Your task to perform on an android device: toggle location history Image 0: 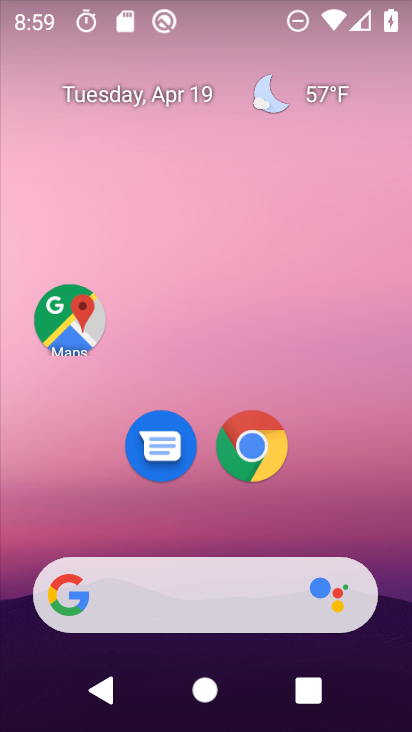
Step 0: press home button
Your task to perform on an android device: toggle location history Image 1: 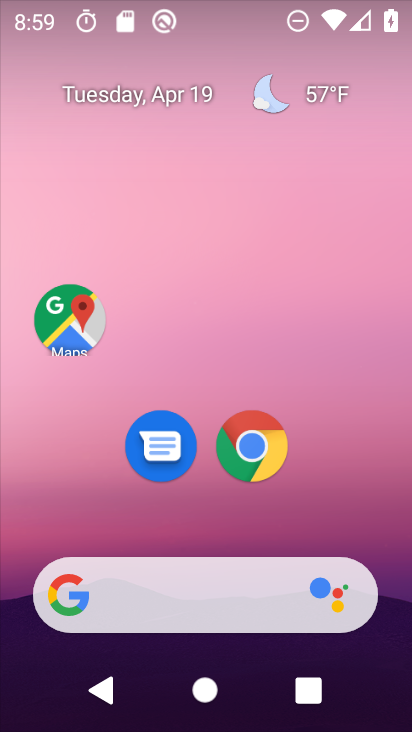
Step 1: drag from (343, 509) to (308, 141)
Your task to perform on an android device: toggle location history Image 2: 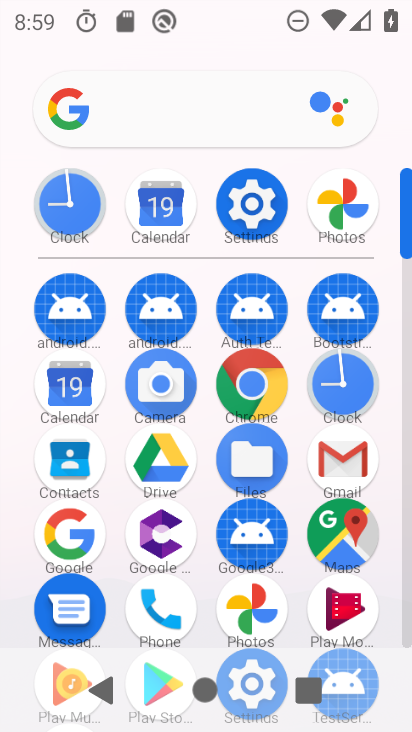
Step 2: click (245, 208)
Your task to perform on an android device: toggle location history Image 3: 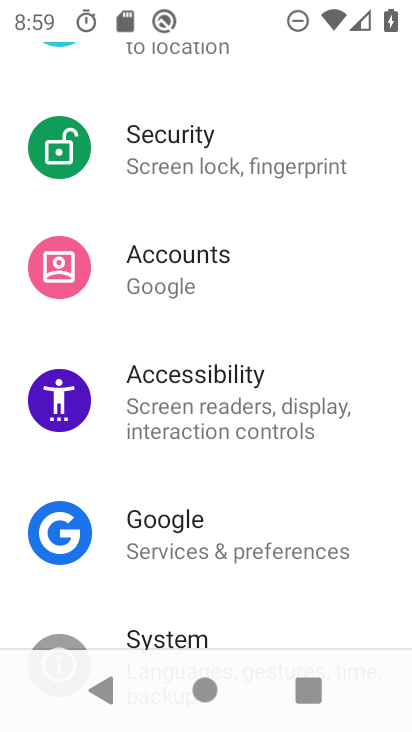
Step 3: drag from (224, 192) to (206, 515)
Your task to perform on an android device: toggle location history Image 4: 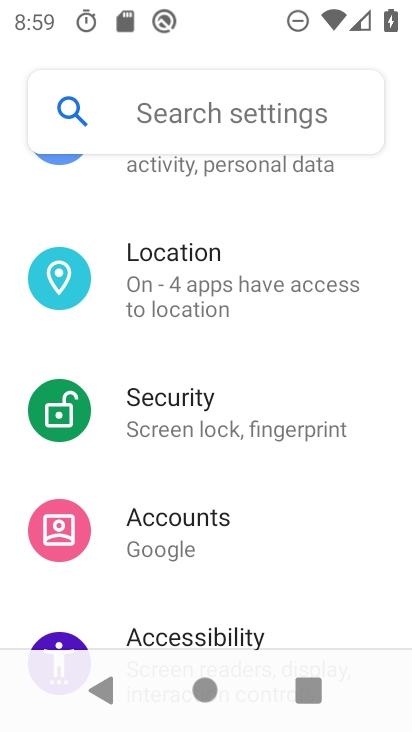
Step 4: click (182, 301)
Your task to perform on an android device: toggle location history Image 5: 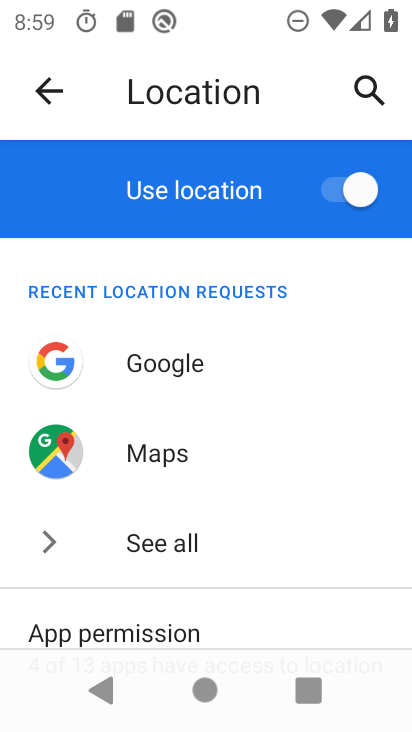
Step 5: drag from (247, 613) to (236, 211)
Your task to perform on an android device: toggle location history Image 6: 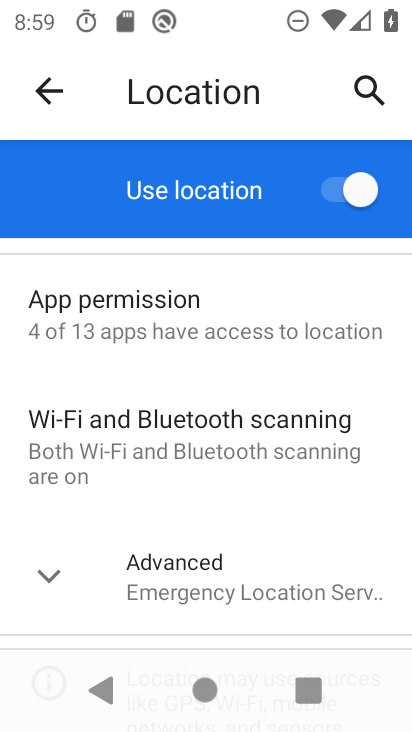
Step 6: click (229, 598)
Your task to perform on an android device: toggle location history Image 7: 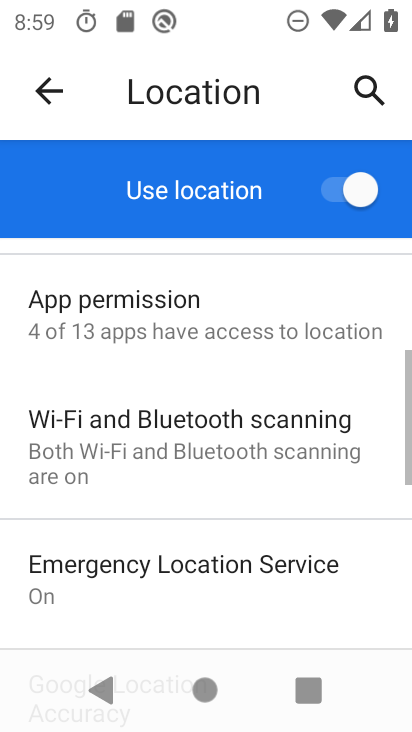
Step 7: drag from (225, 559) to (227, 287)
Your task to perform on an android device: toggle location history Image 8: 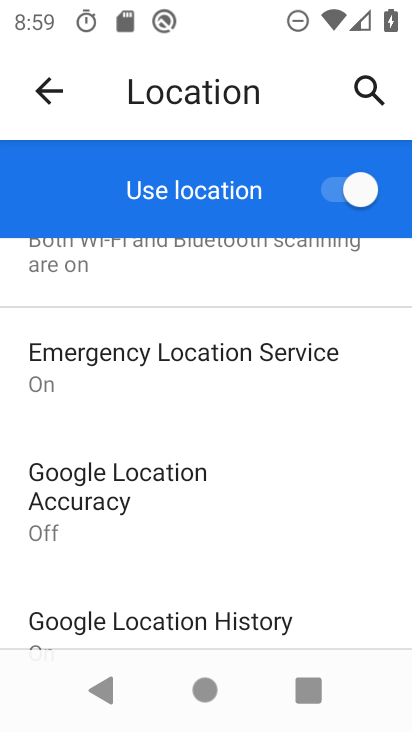
Step 8: click (181, 618)
Your task to perform on an android device: toggle location history Image 9: 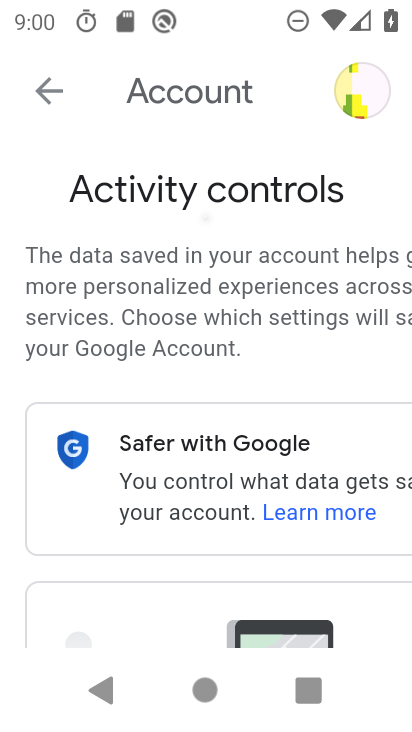
Step 9: drag from (188, 619) to (187, 184)
Your task to perform on an android device: toggle location history Image 10: 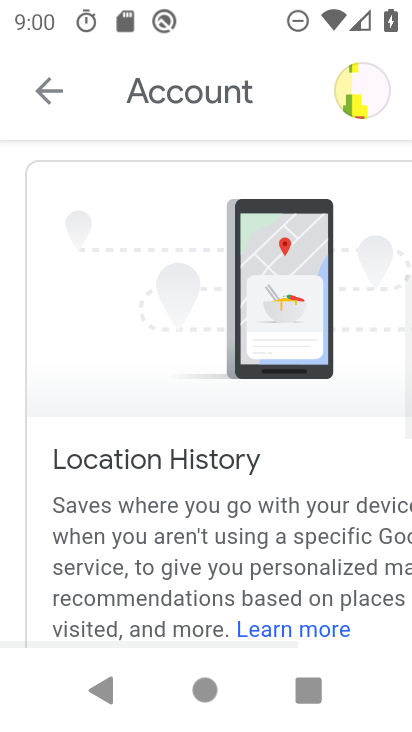
Step 10: drag from (247, 606) to (258, 283)
Your task to perform on an android device: toggle location history Image 11: 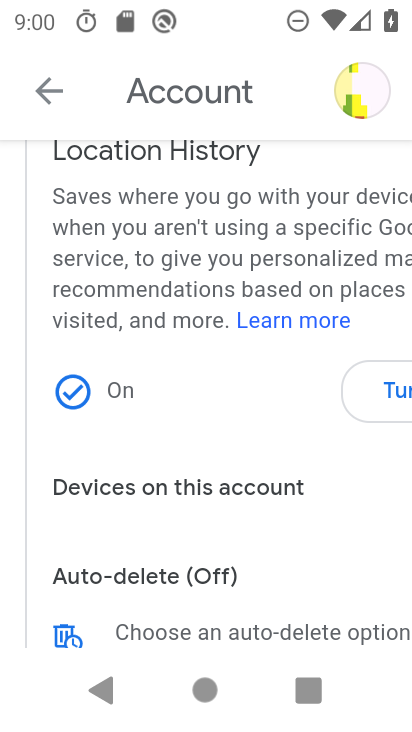
Step 11: click (374, 392)
Your task to perform on an android device: toggle location history Image 12: 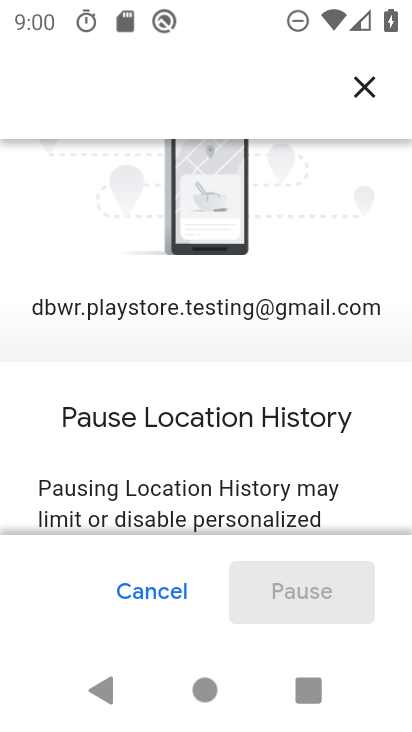
Step 12: drag from (268, 505) to (257, 184)
Your task to perform on an android device: toggle location history Image 13: 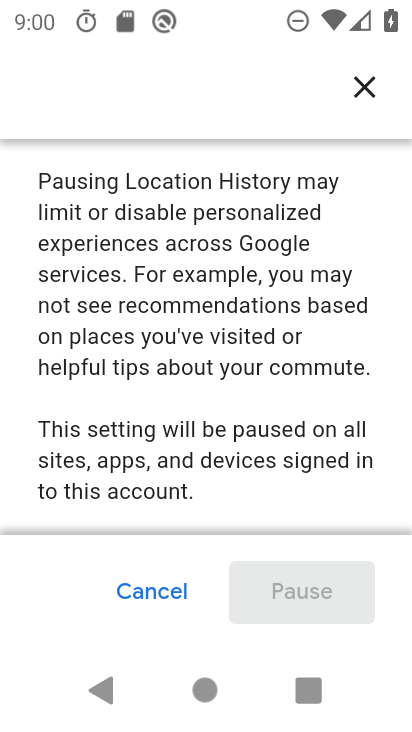
Step 13: drag from (223, 498) to (227, 193)
Your task to perform on an android device: toggle location history Image 14: 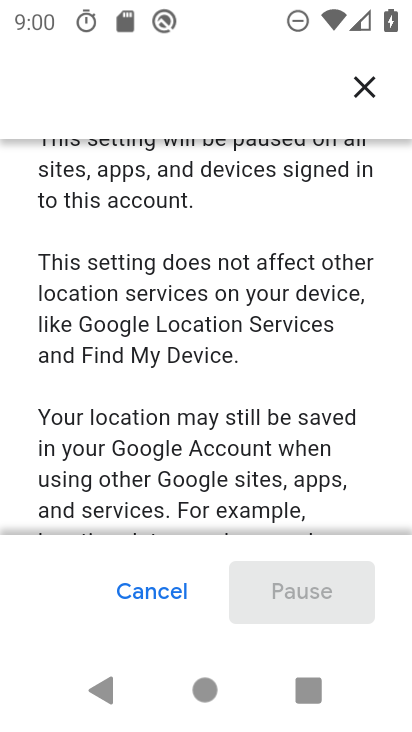
Step 14: drag from (253, 517) to (290, 208)
Your task to perform on an android device: toggle location history Image 15: 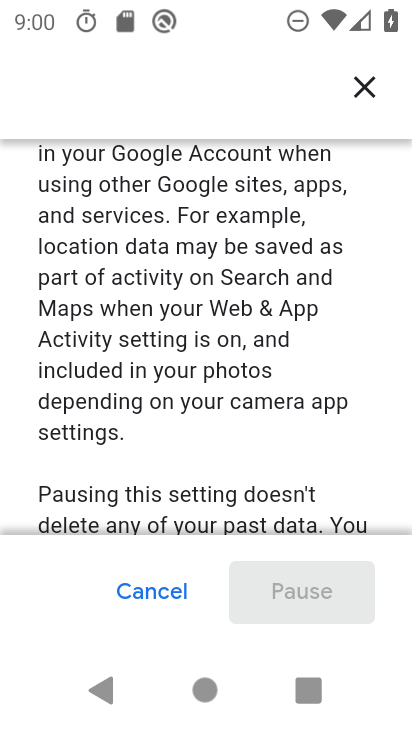
Step 15: drag from (228, 429) to (239, 162)
Your task to perform on an android device: toggle location history Image 16: 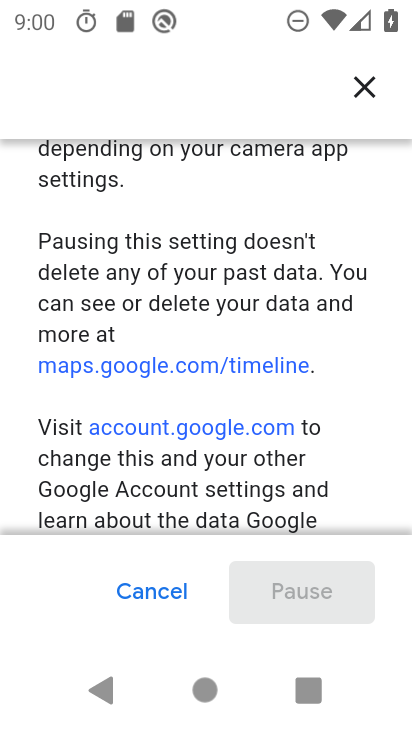
Step 16: drag from (195, 485) to (228, 228)
Your task to perform on an android device: toggle location history Image 17: 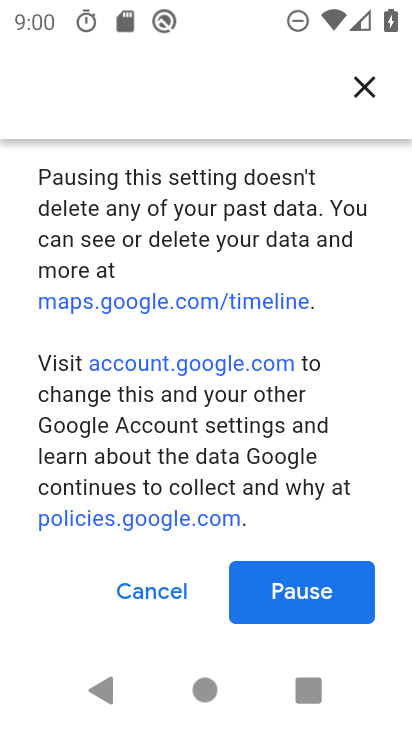
Step 17: click (281, 596)
Your task to perform on an android device: toggle location history Image 18: 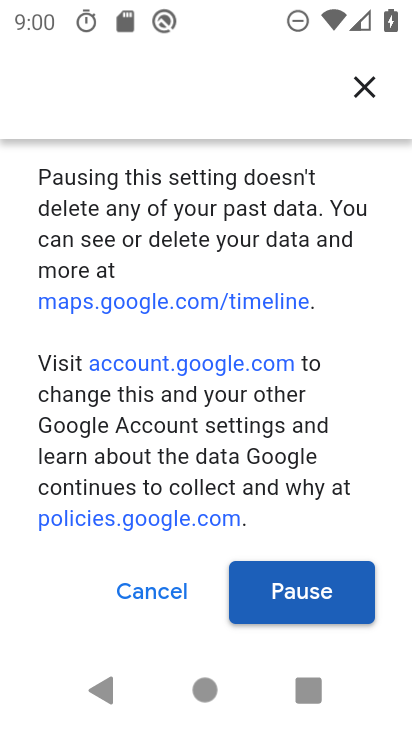
Step 18: drag from (356, 356) to (319, 273)
Your task to perform on an android device: toggle location history Image 19: 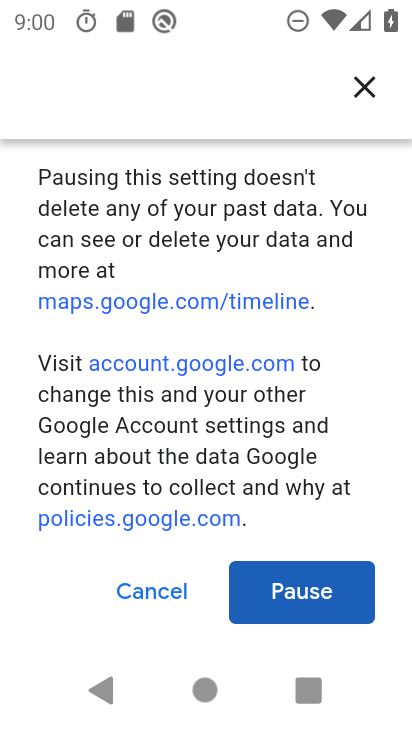
Step 19: click (289, 589)
Your task to perform on an android device: toggle location history Image 20: 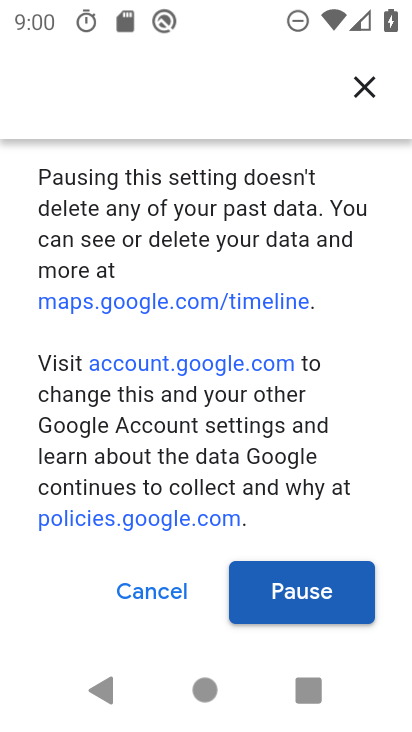
Step 20: click (305, 593)
Your task to perform on an android device: toggle location history Image 21: 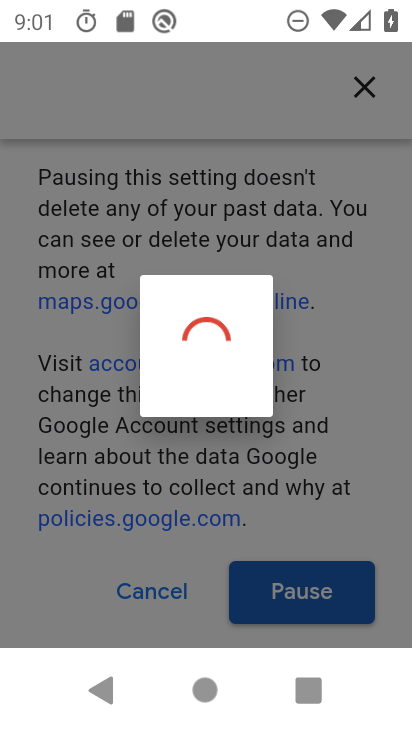
Step 21: click (305, 593)
Your task to perform on an android device: toggle location history Image 22: 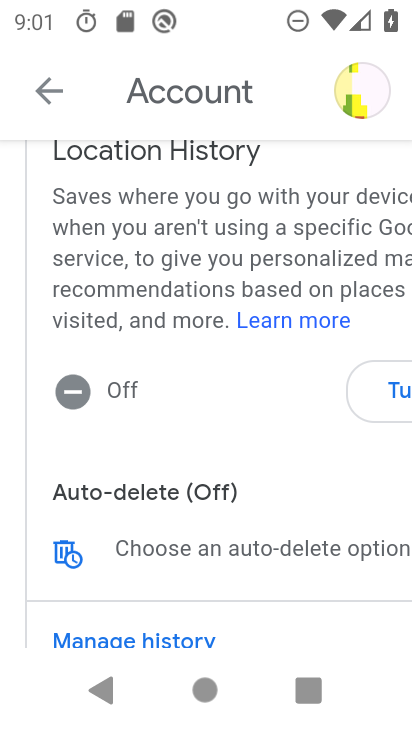
Step 22: task complete